Your task to perform on an android device: Open battery settings Image 0: 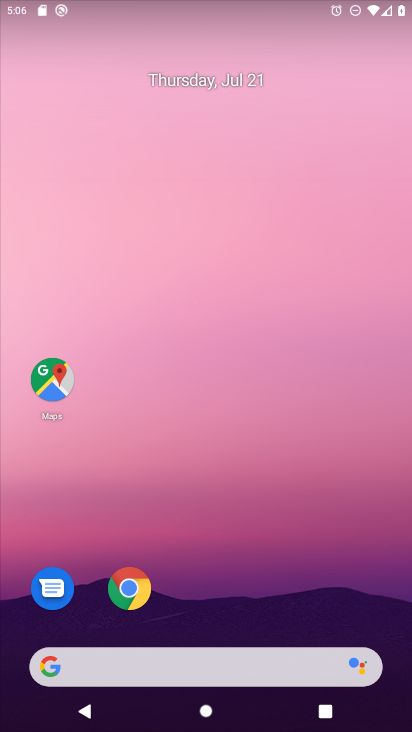
Step 0: drag from (349, 617) to (222, 252)
Your task to perform on an android device: Open battery settings Image 1: 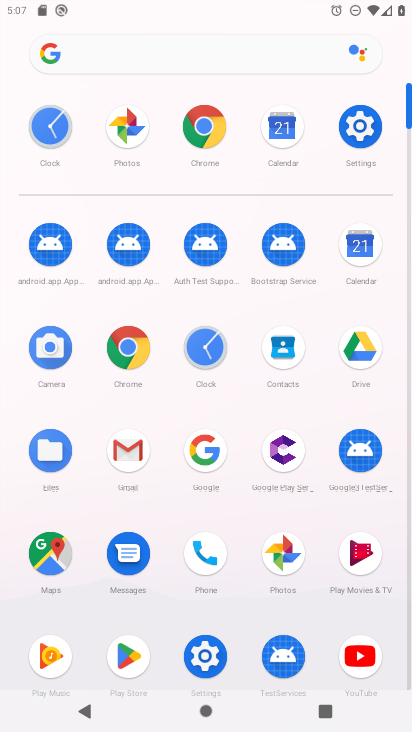
Step 1: click (359, 137)
Your task to perform on an android device: Open battery settings Image 2: 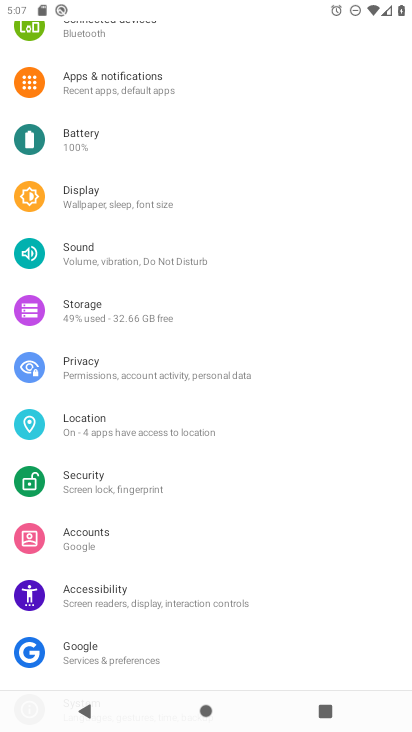
Step 2: click (115, 146)
Your task to perform on an android device: Open battery settings Image 3: 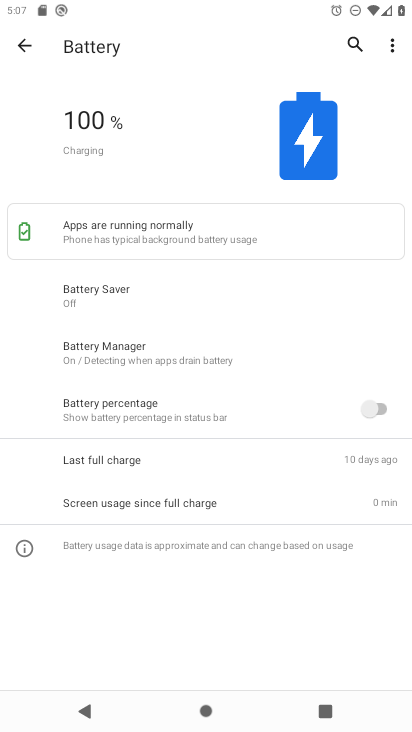
Step 3: task complete